Your task to perform on an android device: check google app version Image 0: 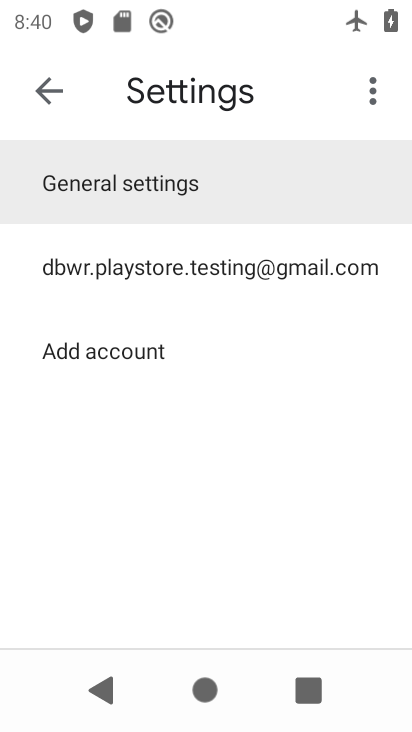
Step 0: press home button
Your task to perform on an android device: check google app version Image 1: 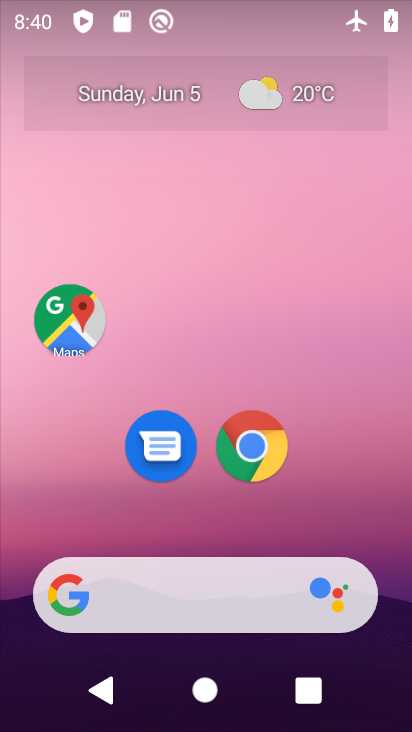
Step 1: drag from (215, 545) to (214, 47)
Your task to perform on an android device: check google app version Image 2: 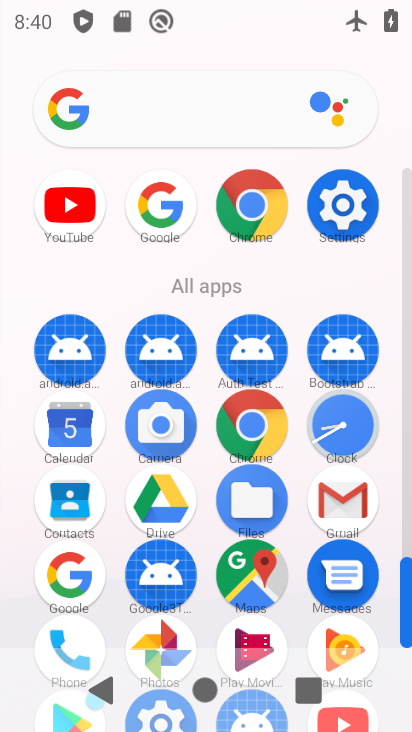
Step 2: drag from (208, 600) to (217, 302)
Your task to perform on an android device: check google app version Image 3: 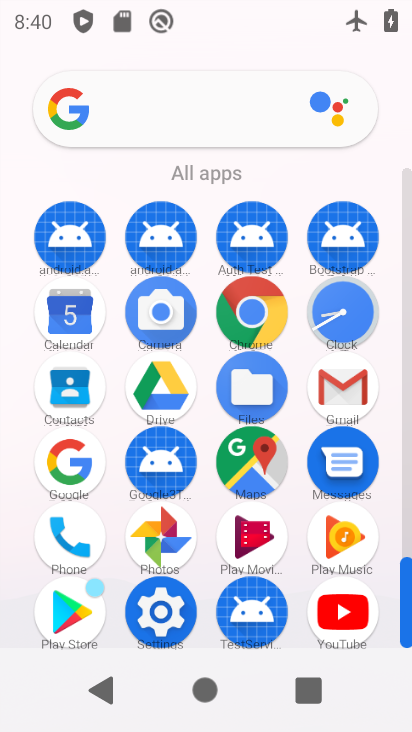
Step 3: click (56, 466)
Your task to perform on an android device: check google app version Image 4: 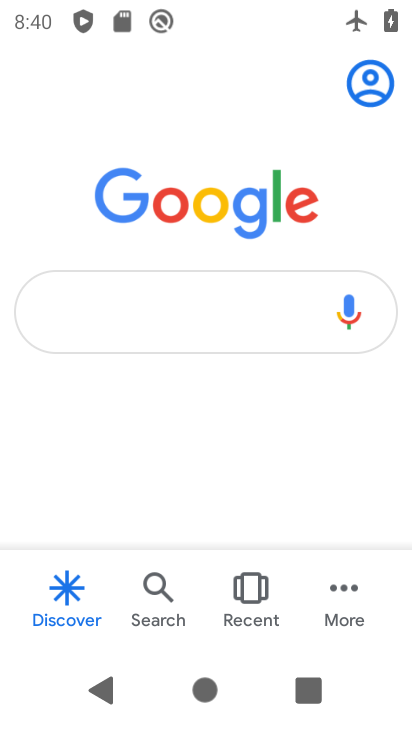
Step 4: click (343, 589)
Your task to perform on an android device: check google app version Image 5: 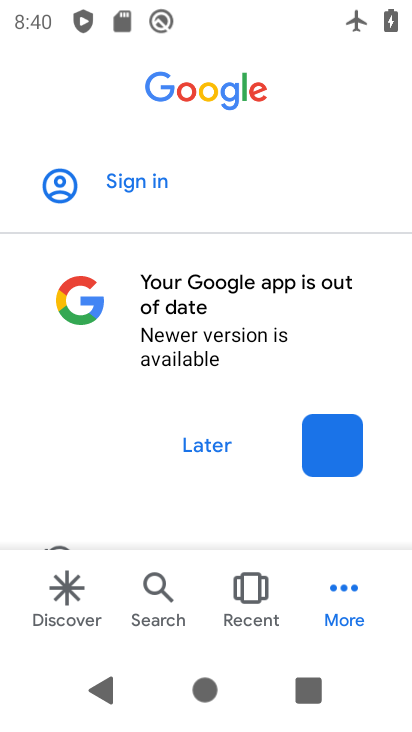
Step 5: click (336, 592)
Your task to perform on an android device: check google app version Image 6: 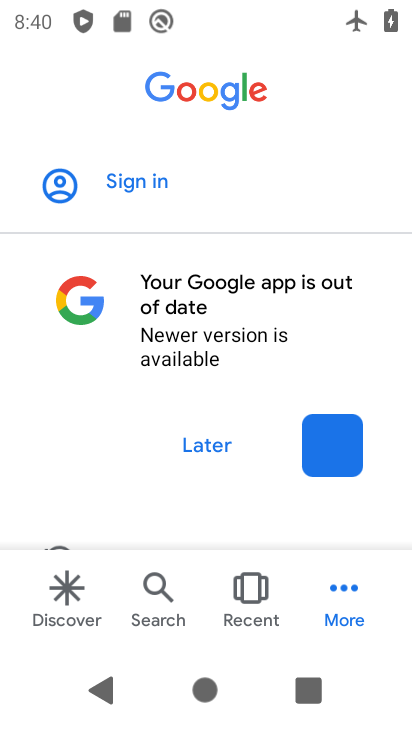
Step 6: click (346, 597)
Your task to perform on an android device: check google app version Image 7: 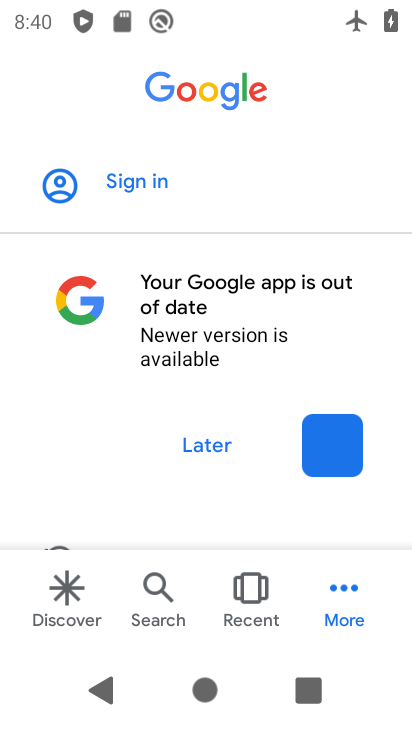
Step 7: click (212, 444)
Your task to perform on an android device: check google app version Image 8: 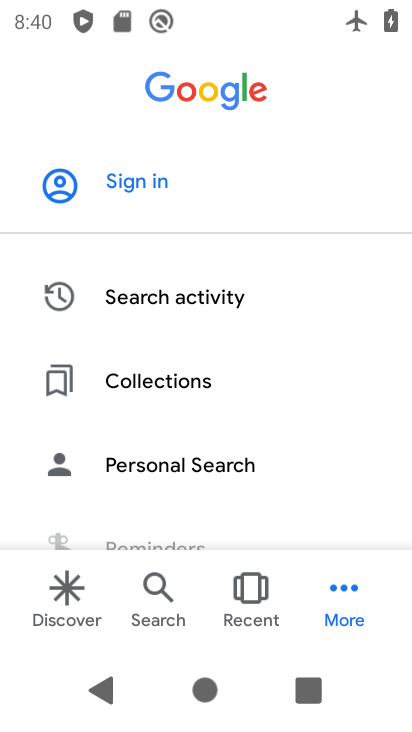
Step 8: drag from (246, 491) to (245, 177)
Your task to perform on an android device: check google app version Image 9: 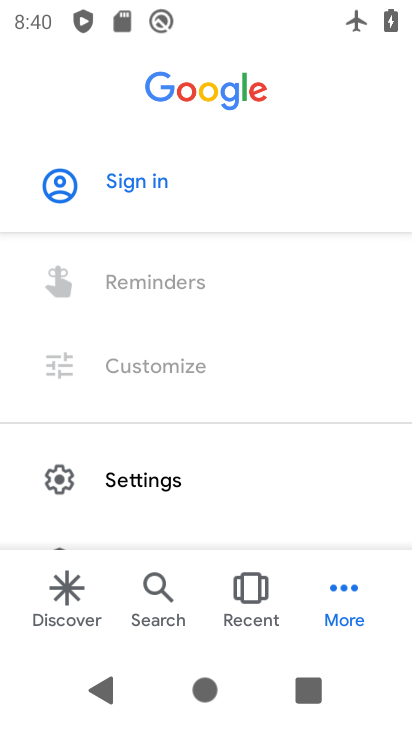
Step 9: drag from (215, 413) to (226, 229)
Your task to perform on an android device: check google app version Image 10: 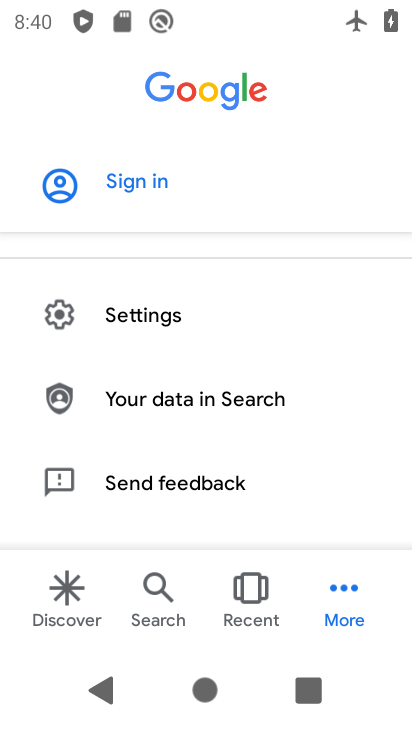
Step 10: drag from (188, 471) to (215, 211)
Your task to perform on an android device: check google app version Image 11: 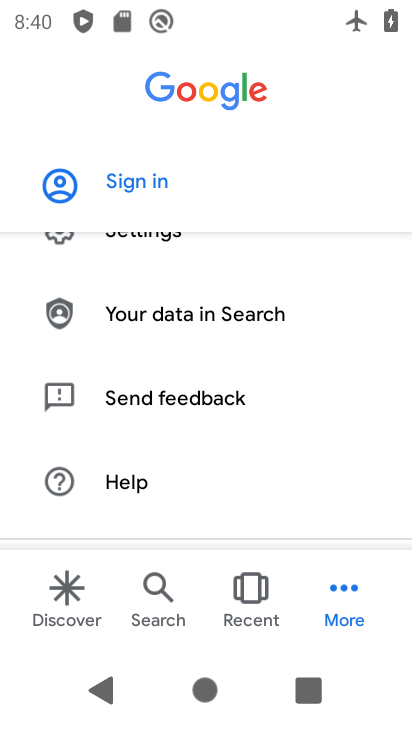
Step 11: drag from (211, 439) to (230, 214)
Your task to perform on an android device: check google app version Image 12: 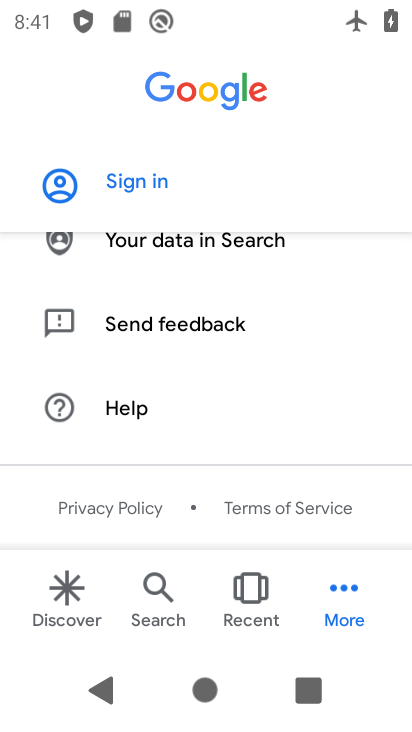
Step 12: drag from (209, 267) to (197, 442)
Your task to perform on an android device: check google app version Image 13: 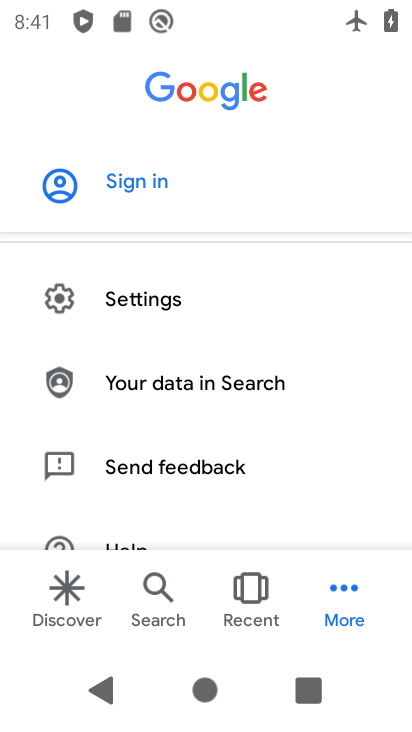
Step 13: click (143, 296)
Your task to perform on an android device: check google app version Image 14: 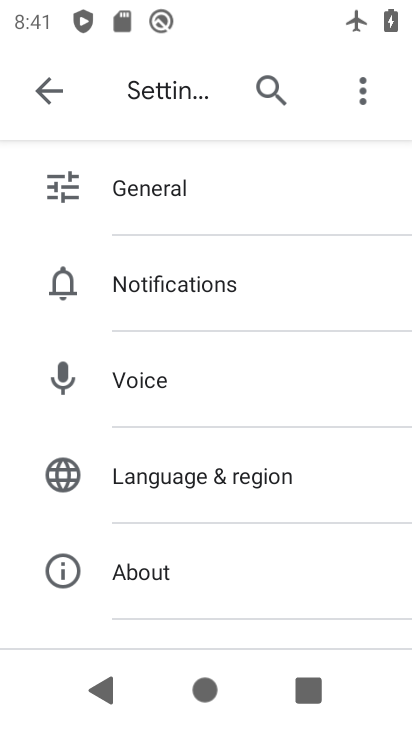
Step 14: click (157, 563)
Your task to perform on an android device: check google app version Image 15: 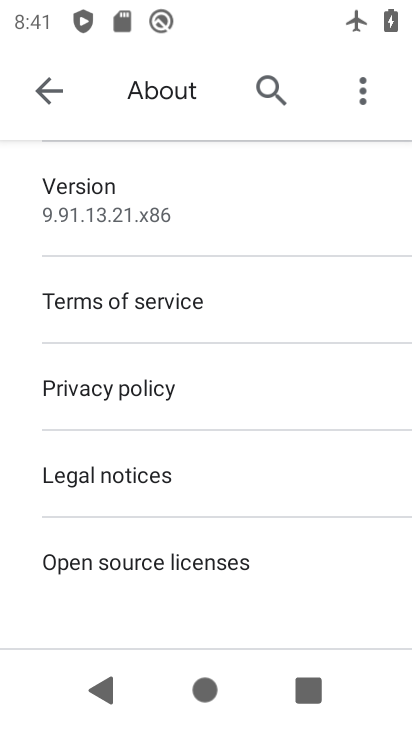
Step 15: click (85, 210)
Your task to perform on an android device: check google app version Image 16: 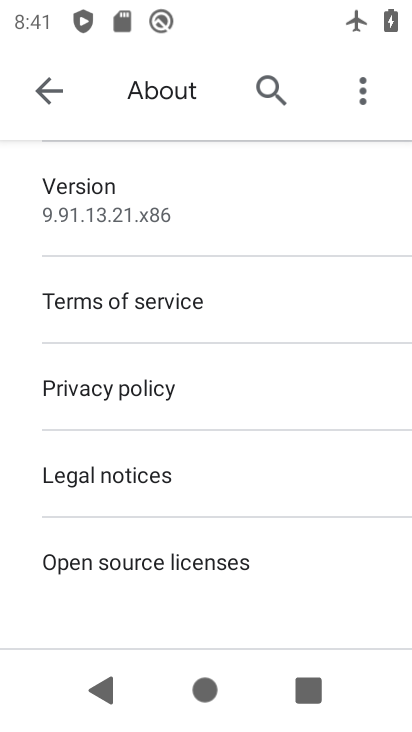
Step 16: task complete